Your task to perform on an android device: toggle wifi Image 0: 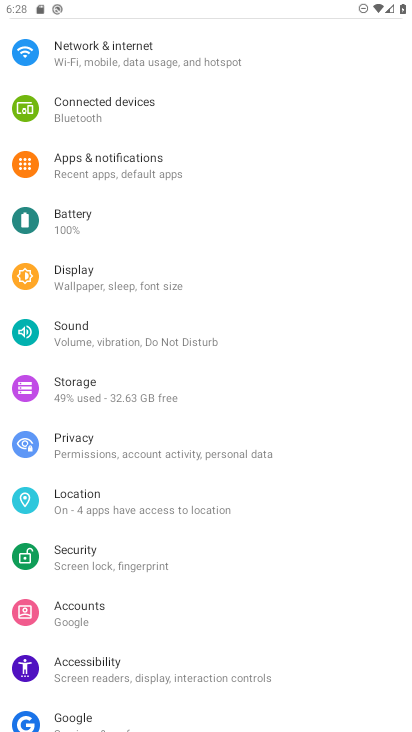
Step 0: press home button
Your task to perform on an android device: toggle wifi Image 1: 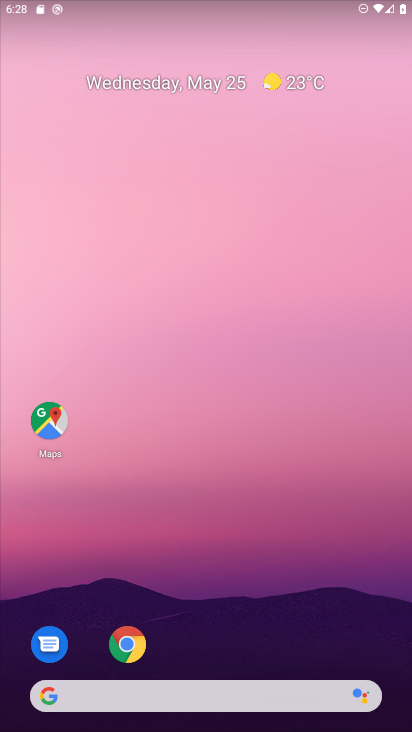
Step 1: drag from (142, 3) to (137, 405)
Your task to perform on an android device: toggle wifi Image 2: 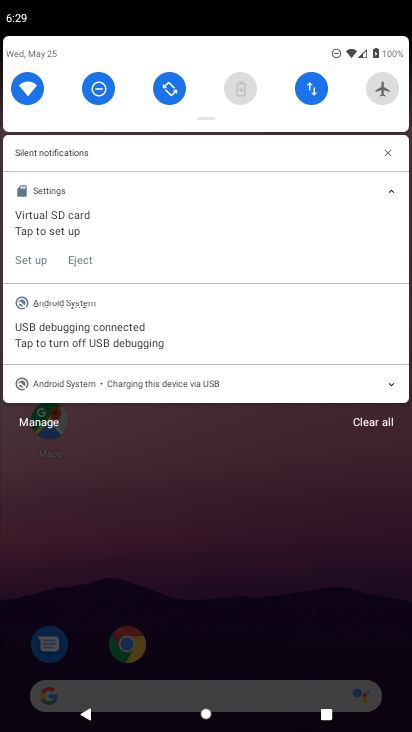
Step 2: click (25, 84)
Your task to perform on an android device: toggle wifi Image 3: 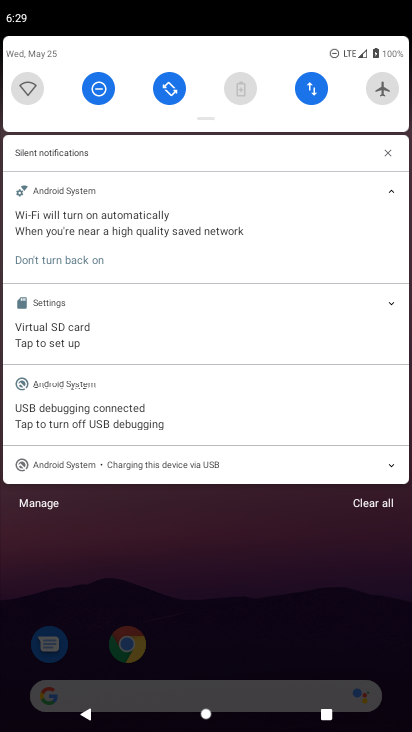
Step 3: task complete